Your task to perform on an android device: check google app version Image 0: 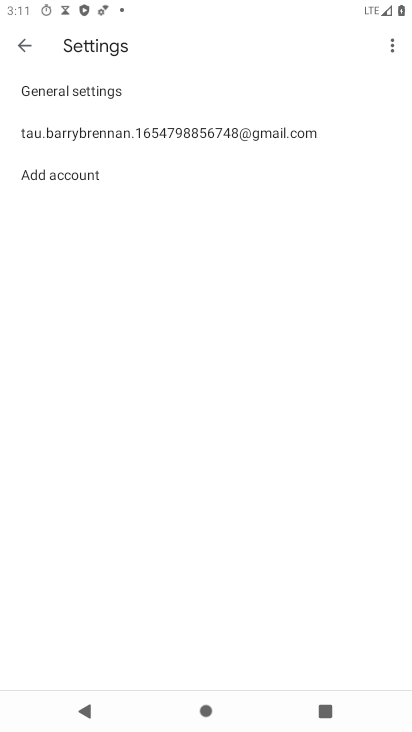
Step 0: press home button
Your task to perform on an android device: check google app version Image 1: 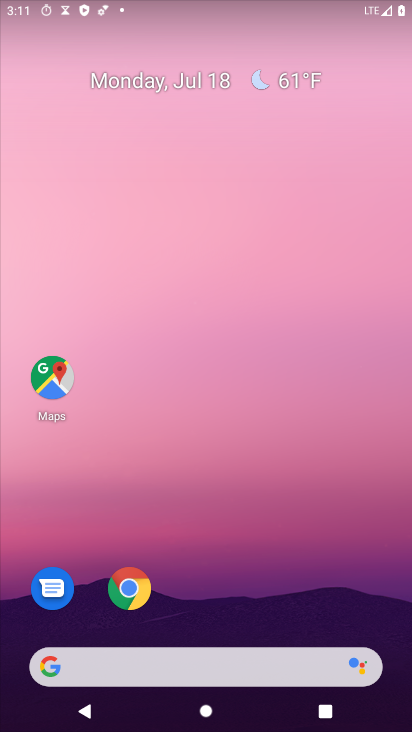
Step 1: drag from (325, 565) to (257, 100)
Your task to perform on an android device: check google app version Image 2: 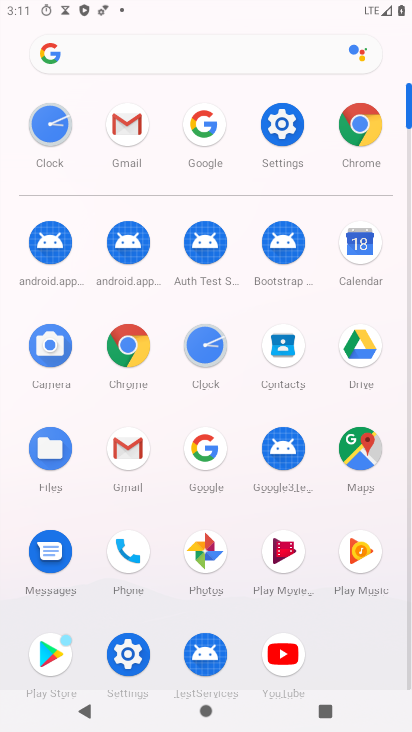
Step 2: click (218, 123)
Your task to perform on an android device: check google app version Image 3: 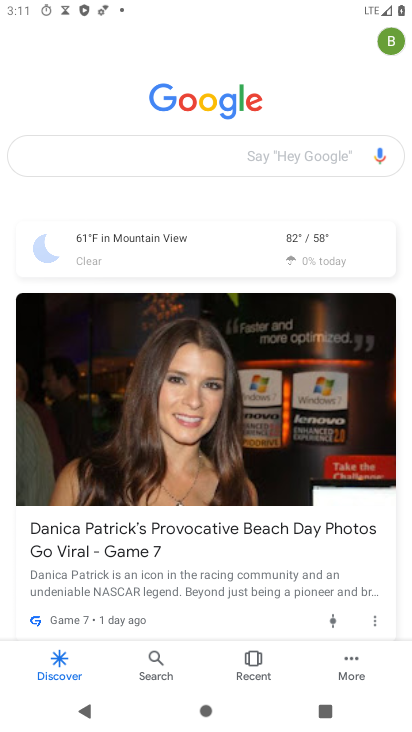
Step 3: click (347, 660)
Your task to perform on an android device: check google app version Image 4: 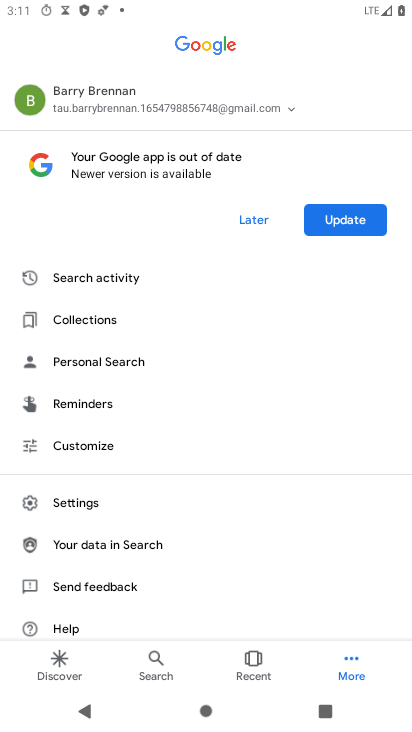
Step 4: click (90, 501)
Your task to perform on an android device: check google app version Image 5: 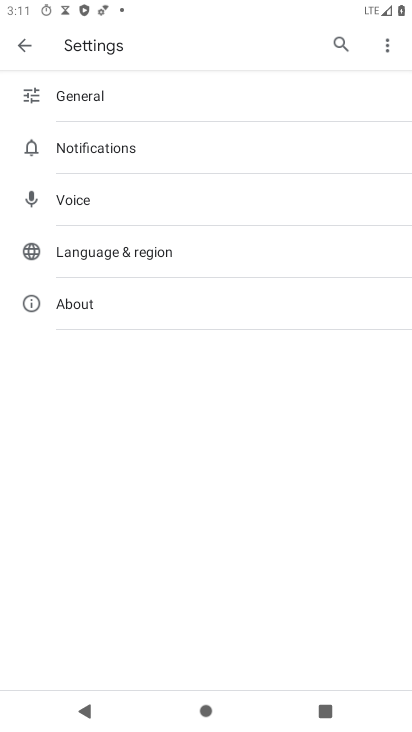
Step 5: click (135, 312)
Your task to perform on an android device: check google app version Image 6: 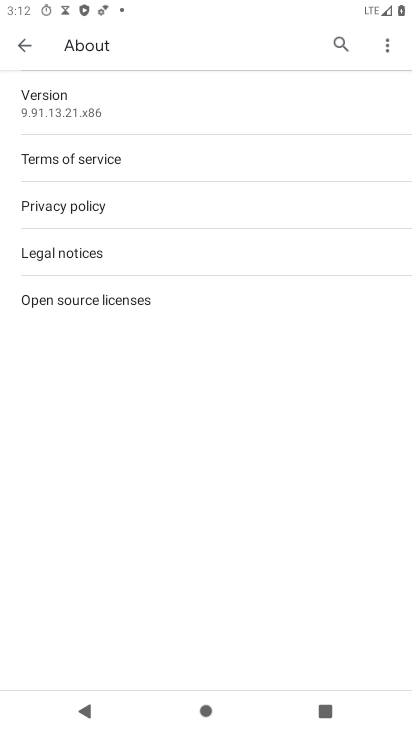
Step 6: click (78, 119)
Your task to perform on an android device: check google app version Image 7: 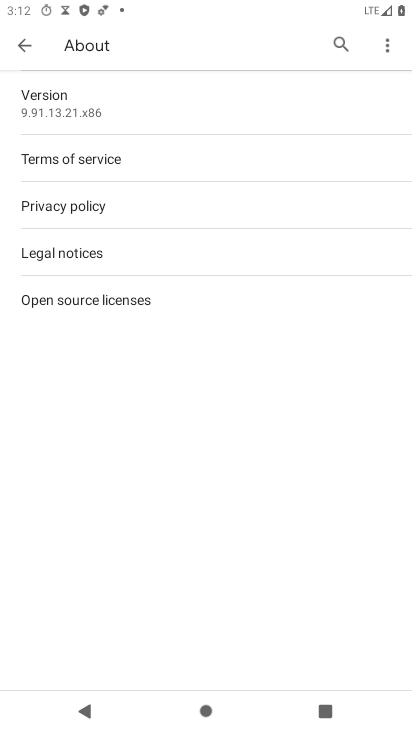
Step 7: task complete